Your task to perform on an android device: Check the weather Image 0: 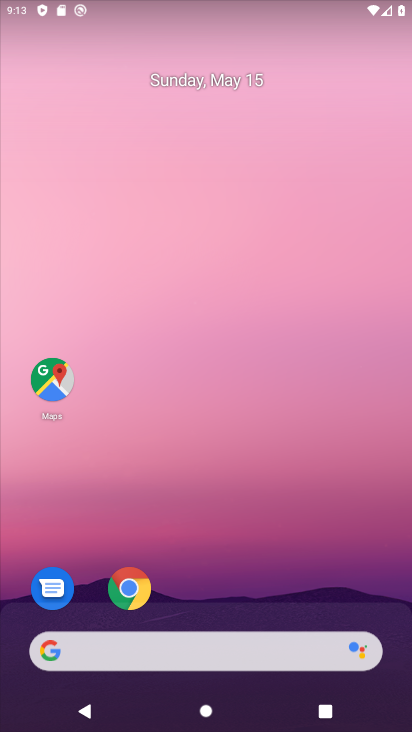
Step 0: drag from (256, 565) to (254, 23)
Your task to perform on an android device: Check the weather Image 1: 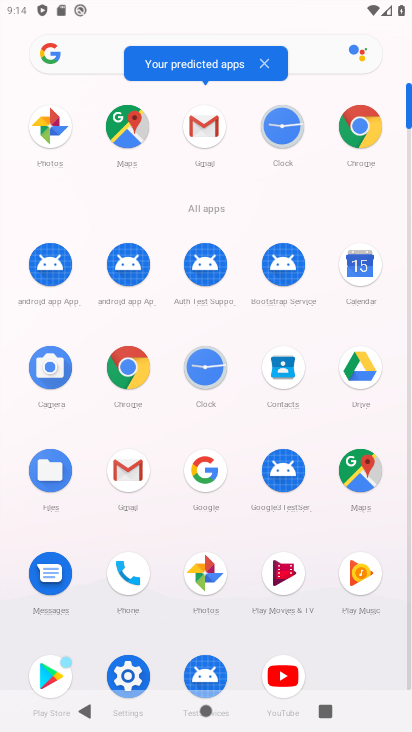
Step 1: click (211, 480)
Your task to perform on an android device: Check the weather Image 2: 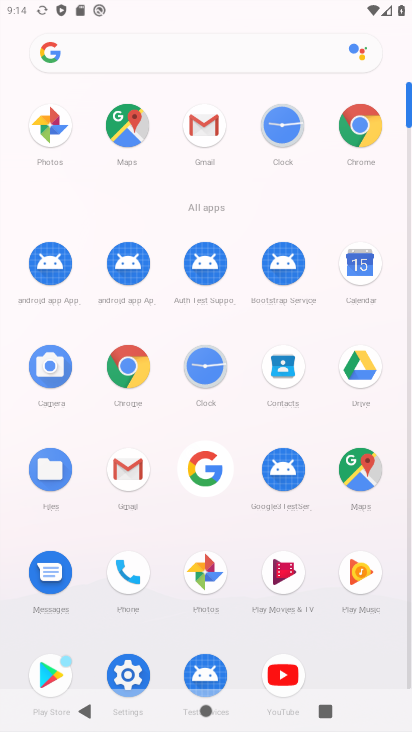
Step 2: click (211, 480)
Your task to perform on an android device: Check the weather Image 3: 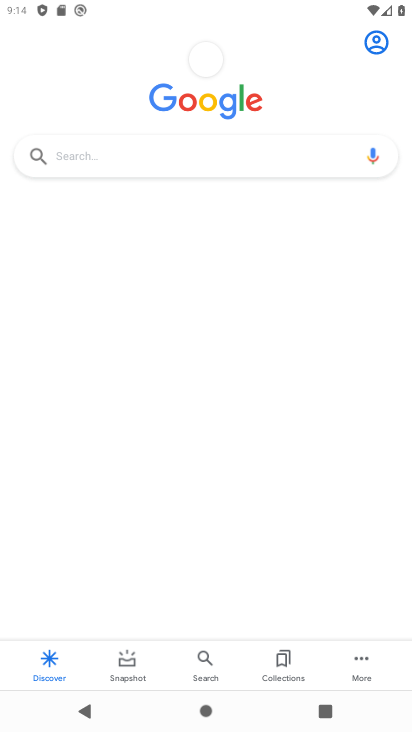
Step 3: click (224, 157)
Your task to perform on an android device: Check the weather Image 4: 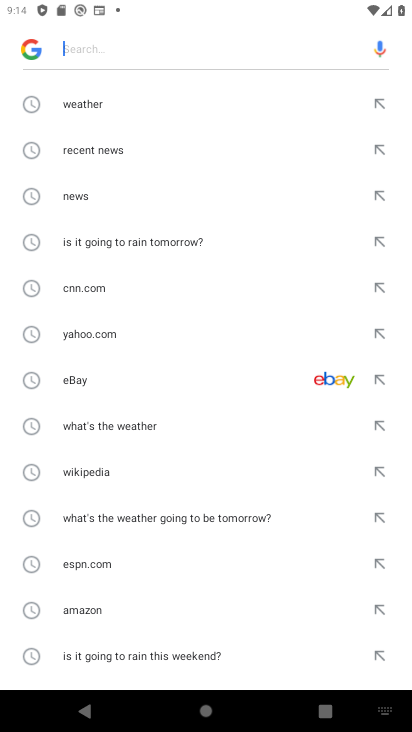
Step 4: click (117, 113)
Your task to perform on an android device: Check the weather Image 5: 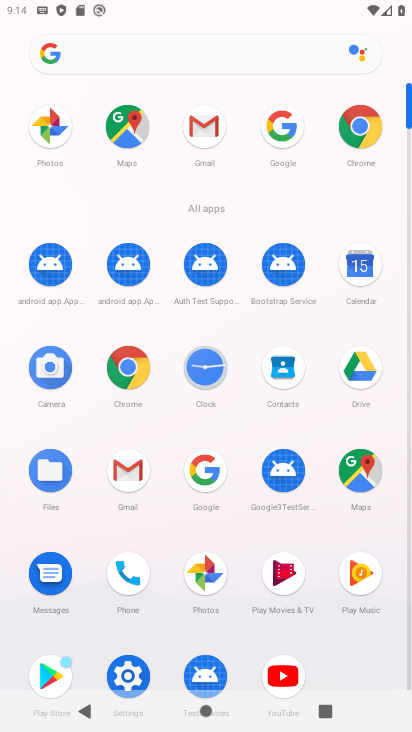
Step 5: click (285, 133)
Your task to perform on an android device: Check the weather Image 6: 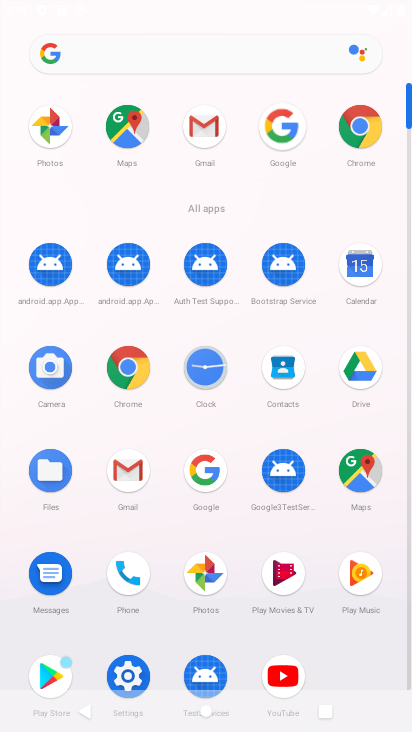
Step 6: click (285, 133)
Your task to perform on an android device: Check the weather Image 7: 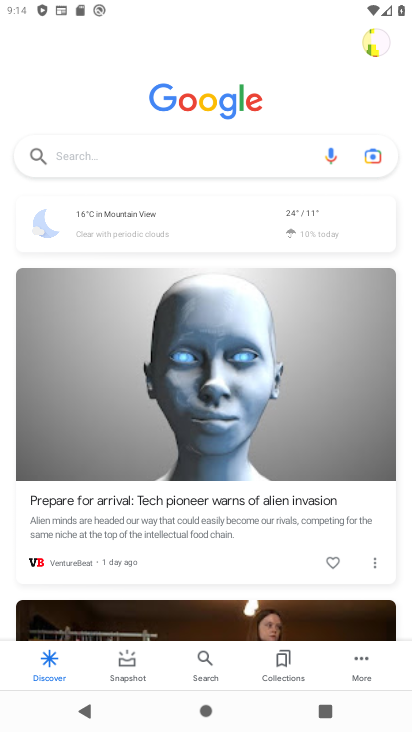
Step 7: click (301, 208)
Your task to perform on an android device: Check the weather Image 8: 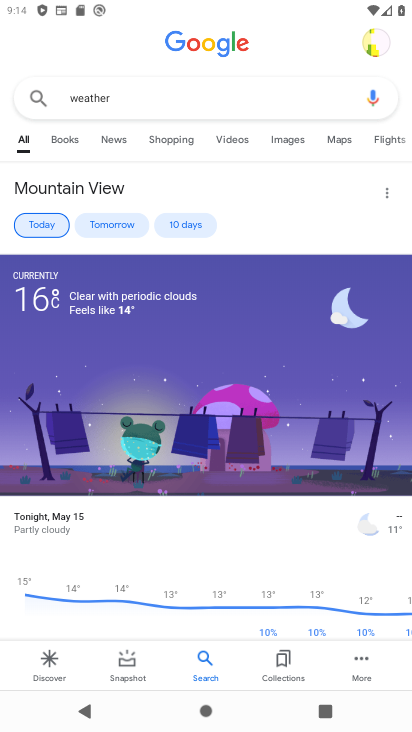
Step 8: task complete